Your task to perform on an android device: Is it going to rain tomorrow? Image 0: 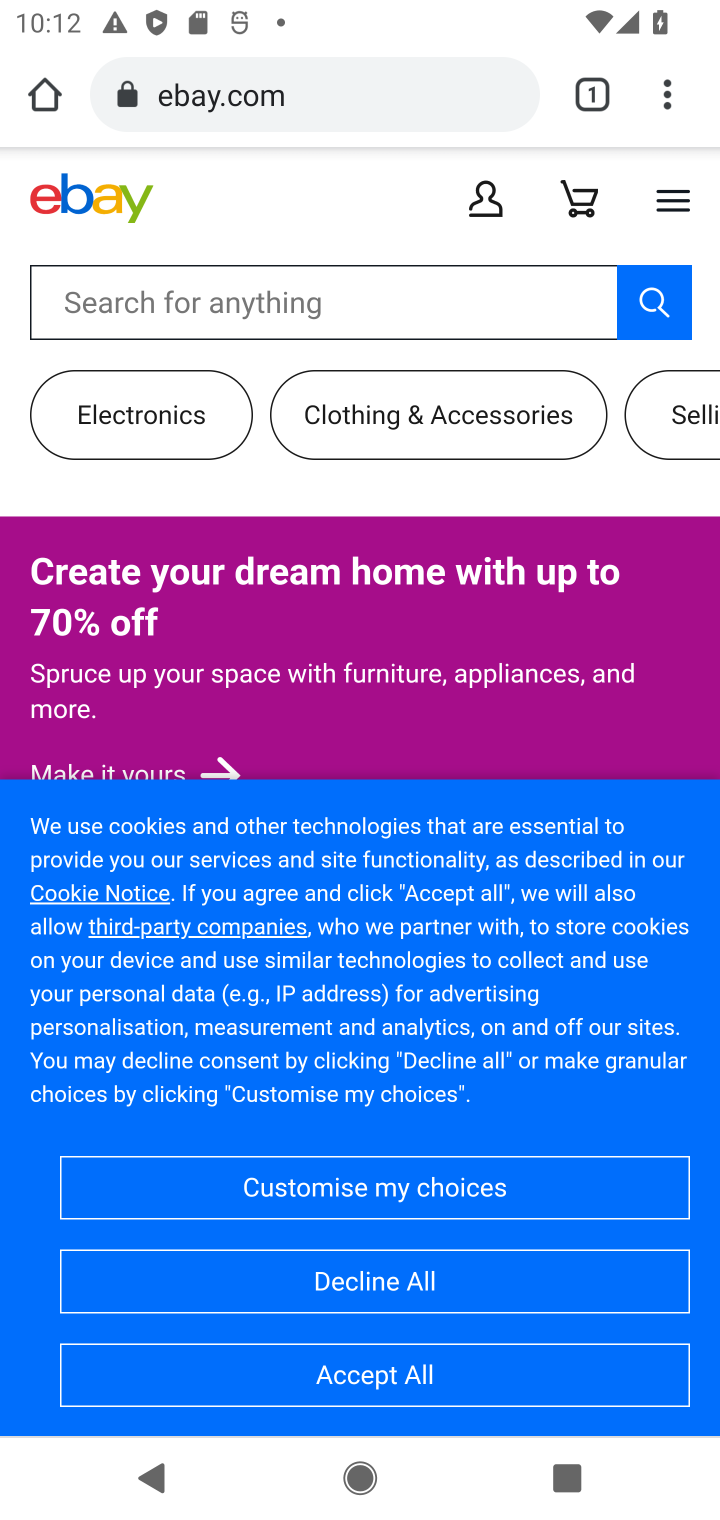
Step 0: press home button
Your task to perform on an android device: Is it going to rain tomorrow? Image 1: 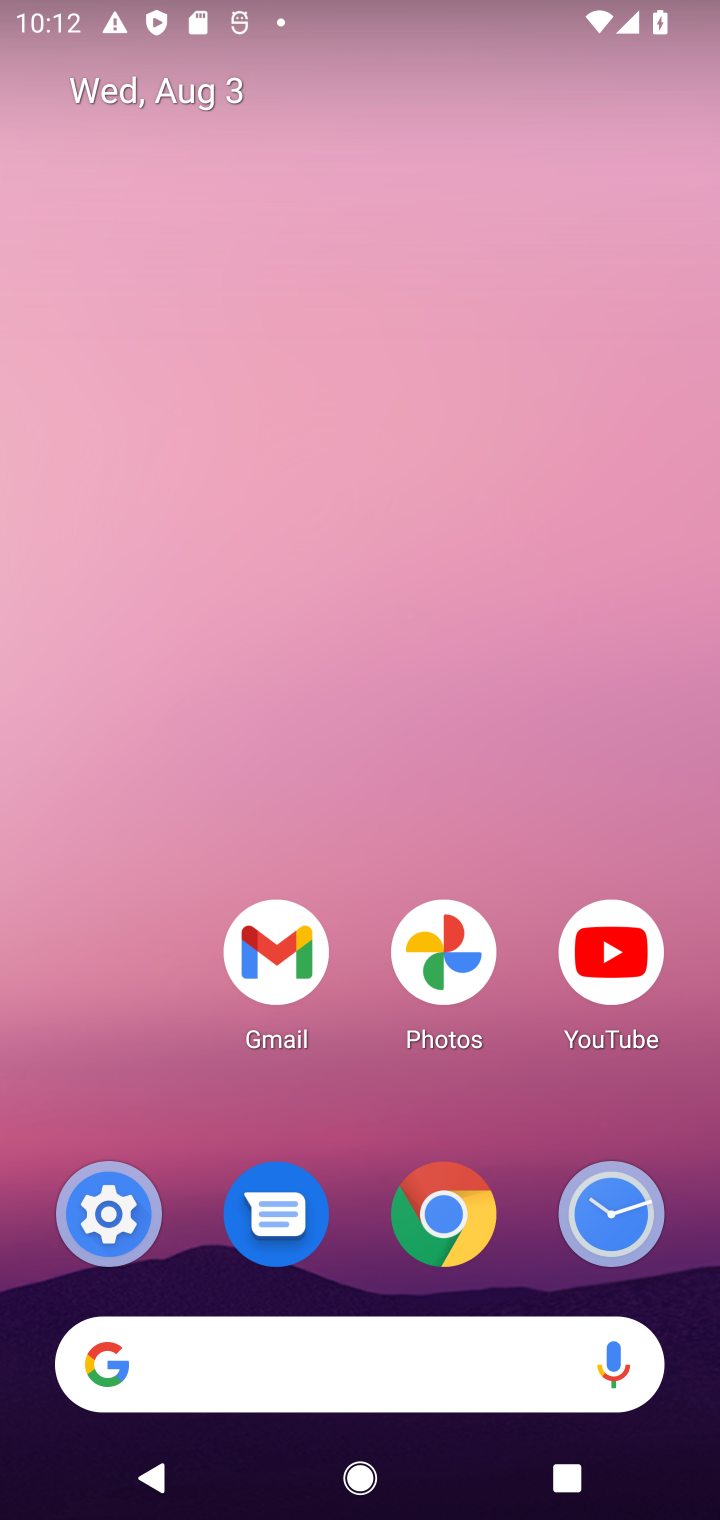
Step 1: click (483, 1225)
Your task to perform on an android device: Is it going to rain tomorrow? Image 2: 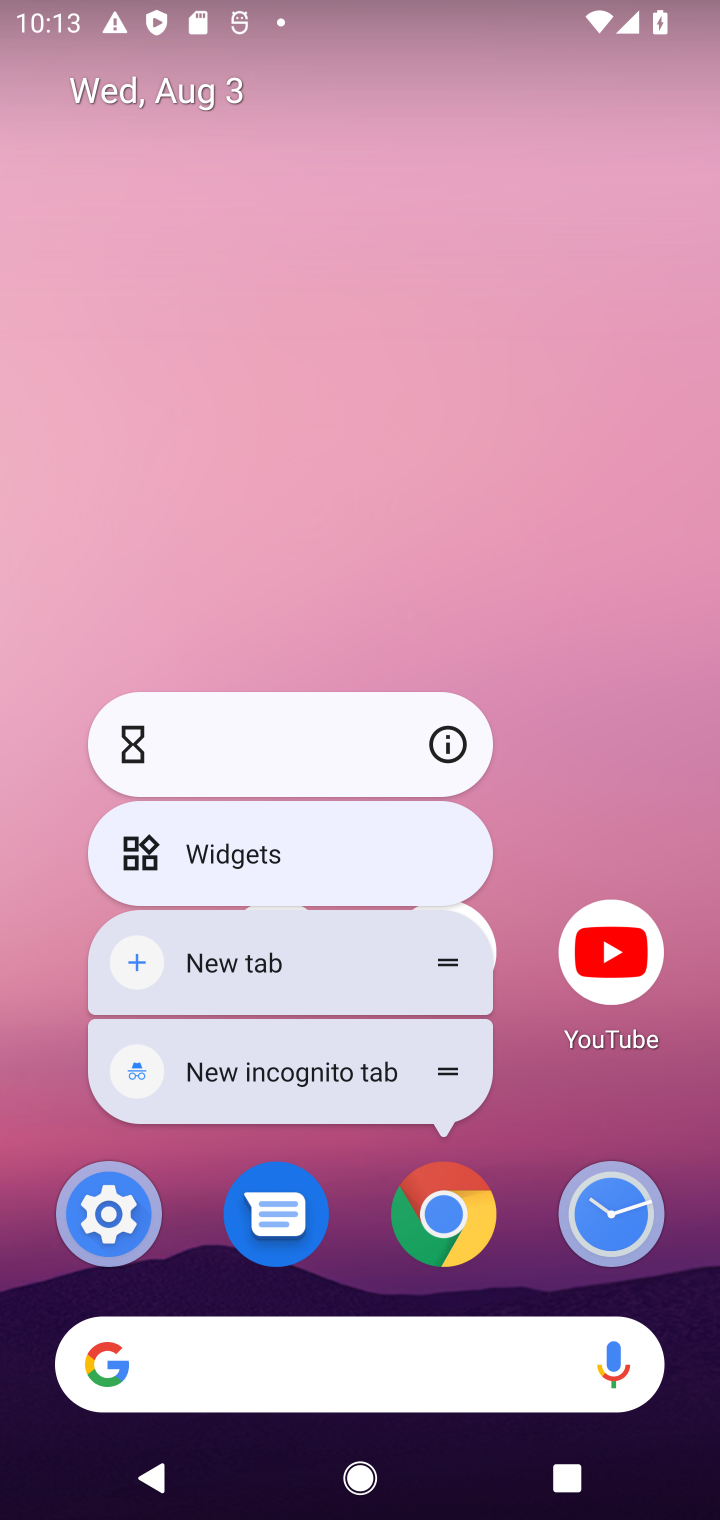
Step 2: click (457, 1222)
Your task to perform on an android device: Is it going to rain tomorrow? Image 3: 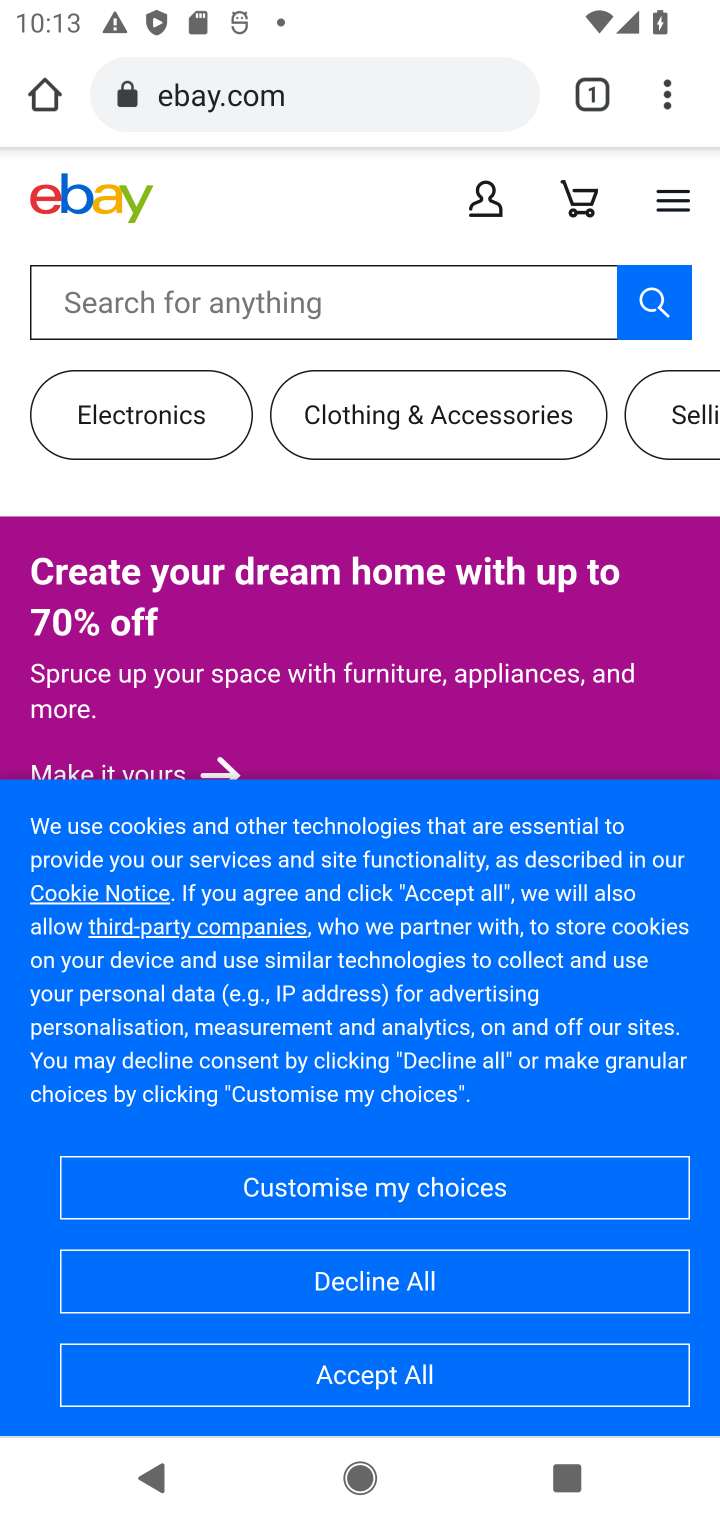
Step 3: click (417, 82)
Your task to perform on an android device: Is it going to rain tomorrow? Image 4: 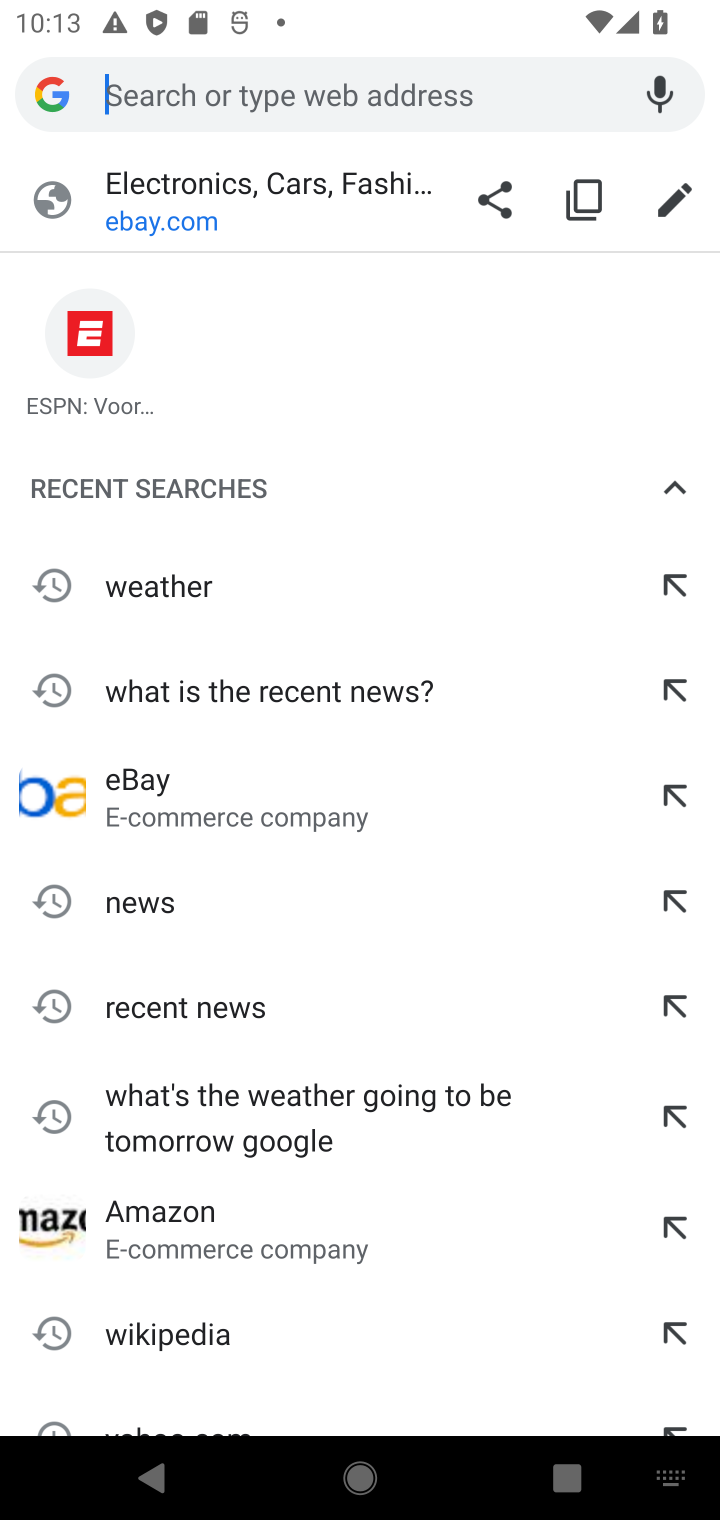
Step 4: type "Is it going to rain tomorrow?"
Your task to perform on an android device: Is it going to rain tomorrow? Image 5: 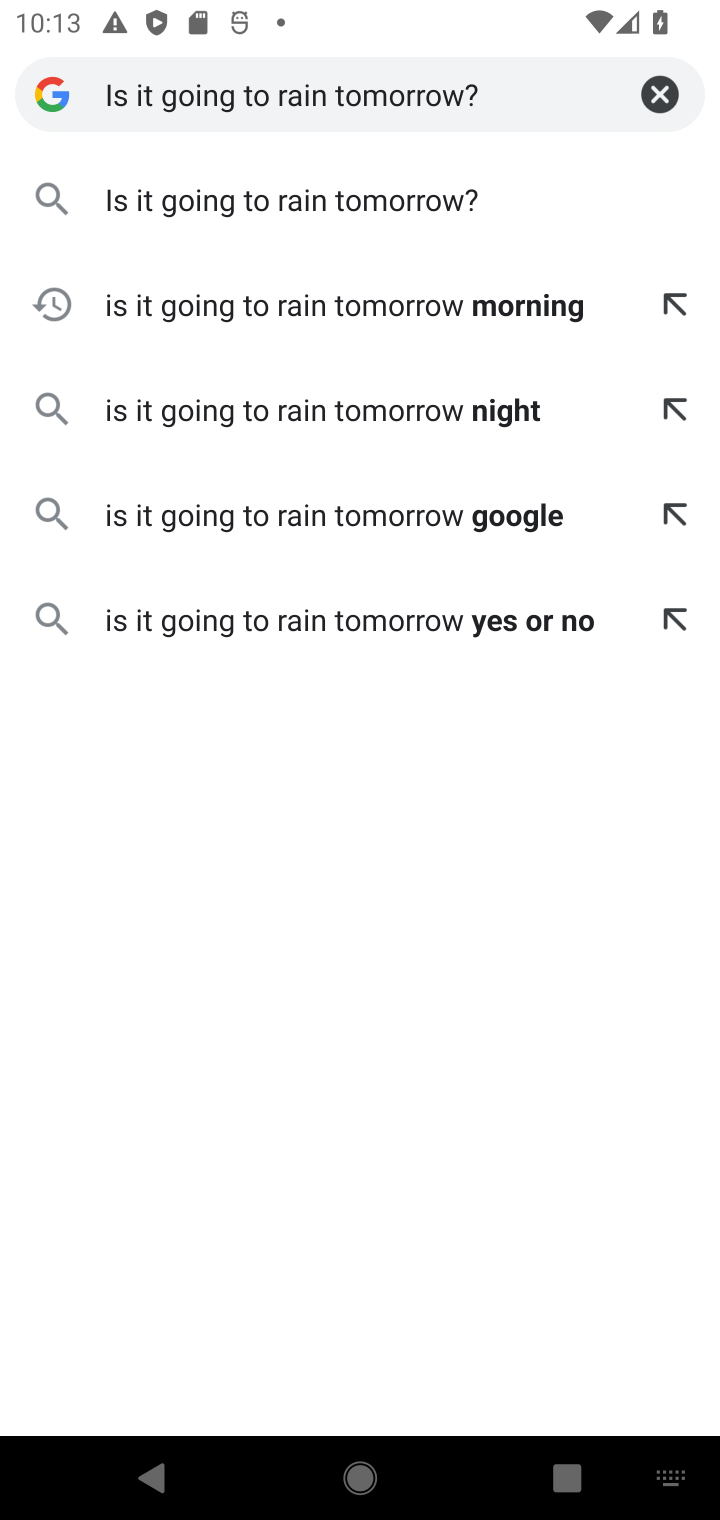
Step 5: click (444, 182)
Your task to perform on an android device: Is it going to rain tomorrow? Image 6: 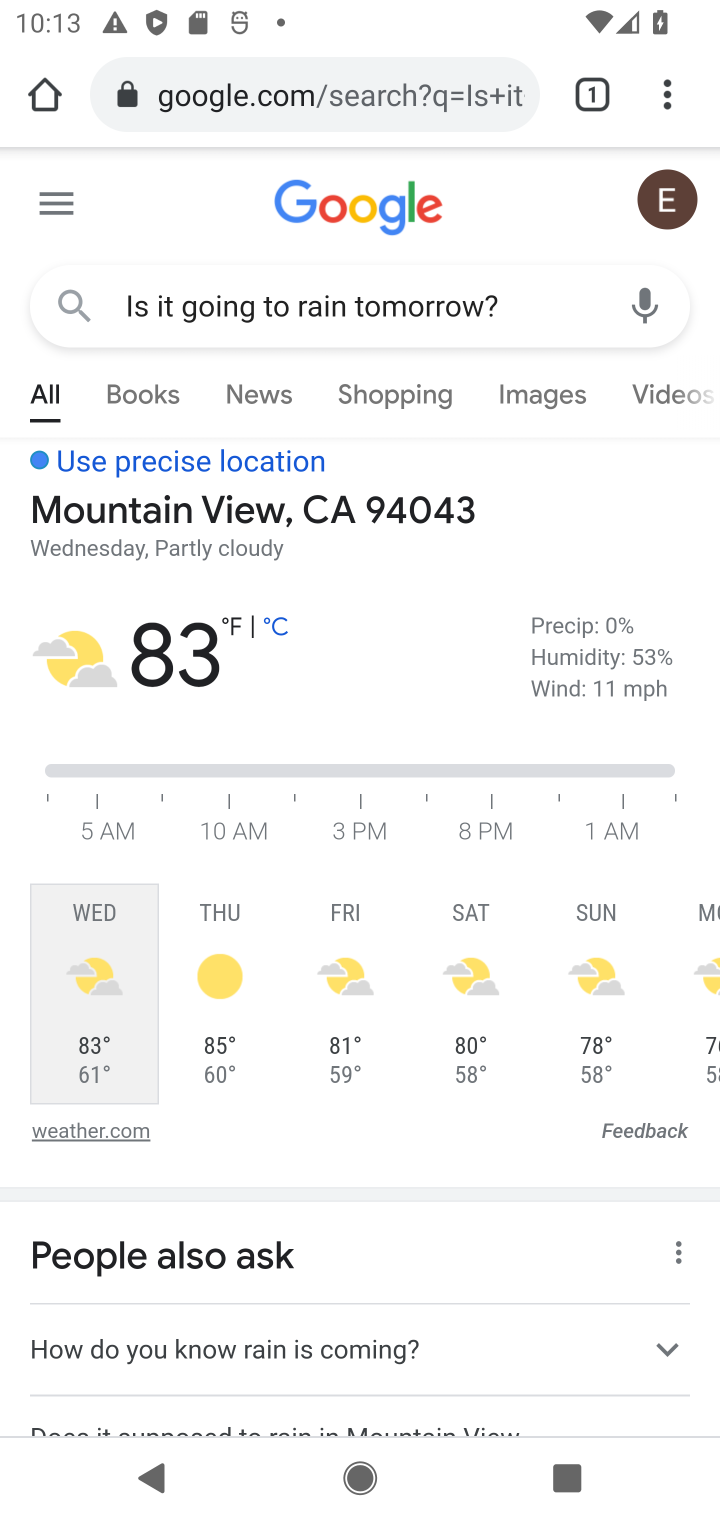
Step 6: task complete